Your task to perform on an android device: What's the weather going to be this weekend? Image 0: 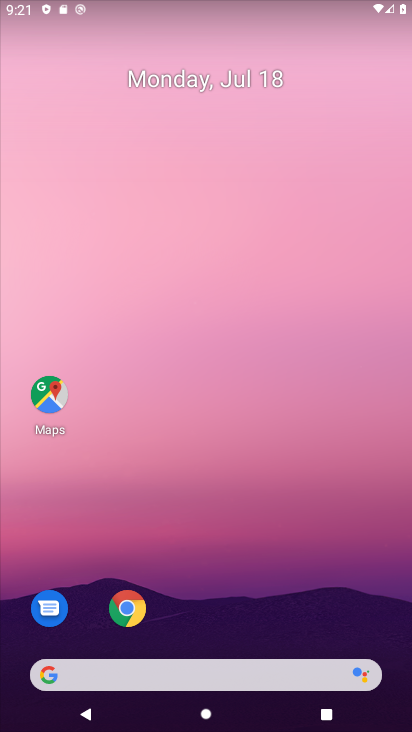
Step 0: drag from (159, 554) to (160, 207)
Your task to perform on an android device: What's the weather going to be this weekend? Image 1: 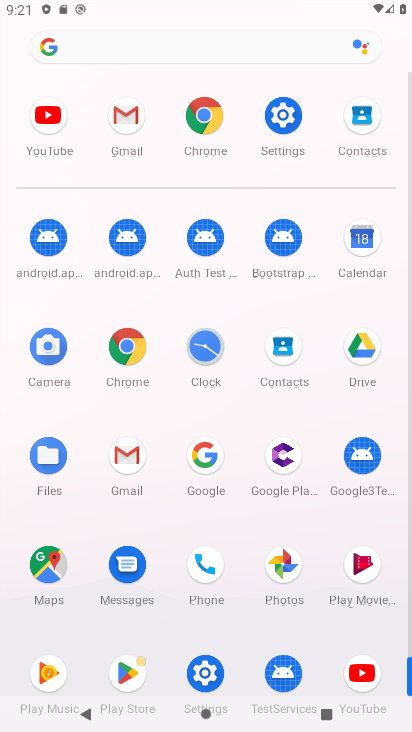
Step 1: click (186, 115)
Your task to perform on an android device: What's the weather going to be this weekend? Image 2: 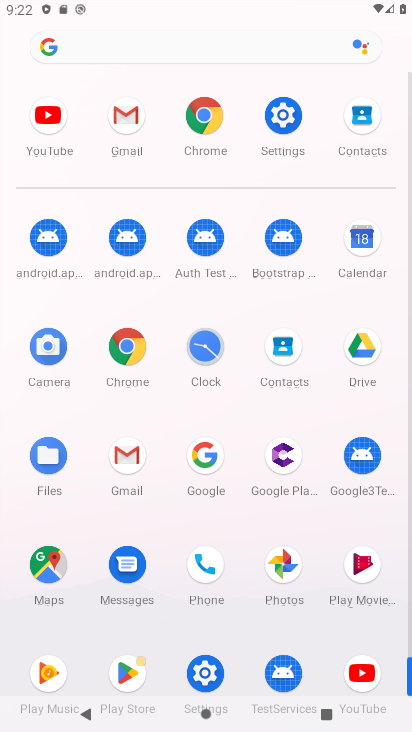
Step 2: click (207, 112)
Your task to perform on an android device: What's the weather going to be this weekend? Image 3: 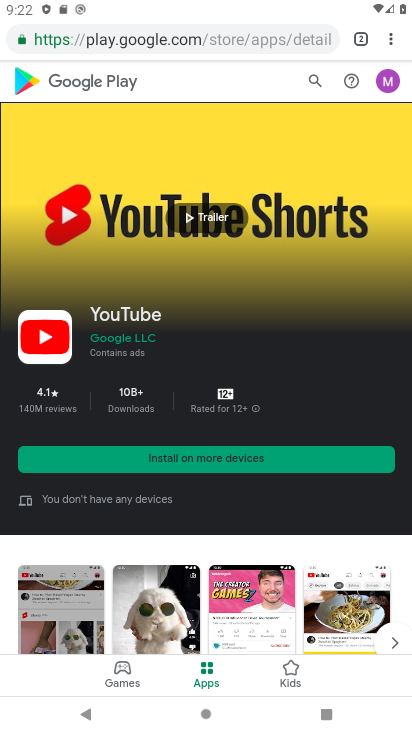
Step 3: drag from (396, 34) to (248, 502)
Your task to perform on an android device: What's the weather going to be this weekend? Image 4: 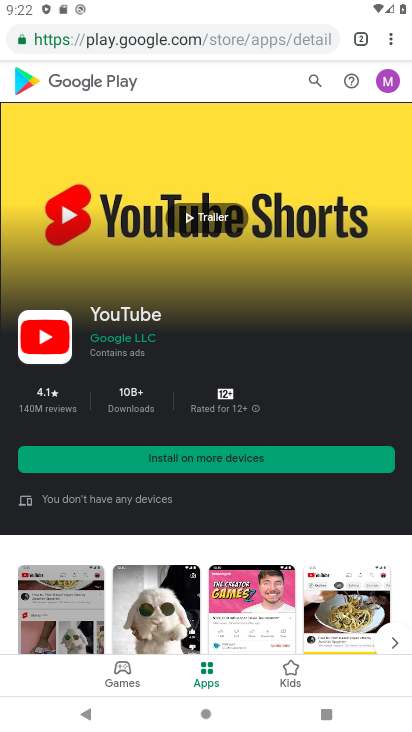
Step 4: click (80, 142)
Your task to perform on an android device: What's the weather going to be this weekend? Image 5: 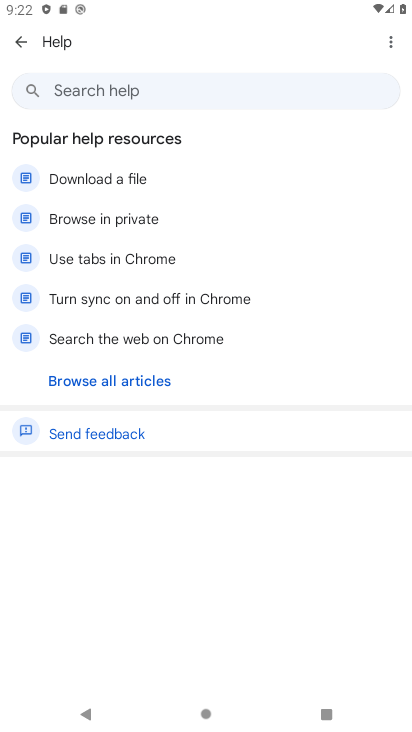
Step 5: click (22, 38)
Your task to perform on an android device: What's the weather going to be this weekend? Image 6: 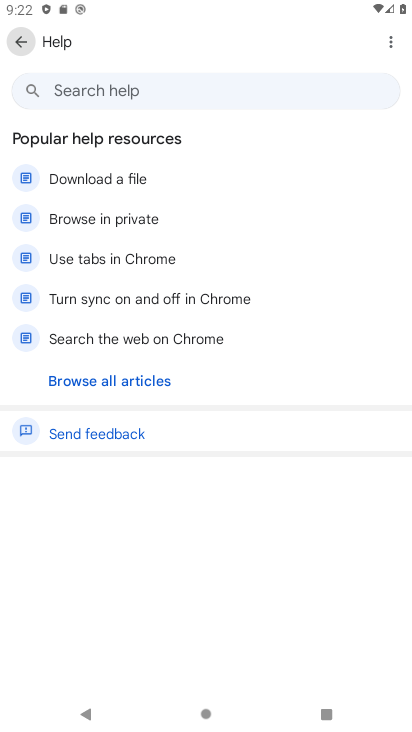
Step 6: click (22, 38)
Your task to perform on an android device: What's the weather going to be this weekend? Image 7: 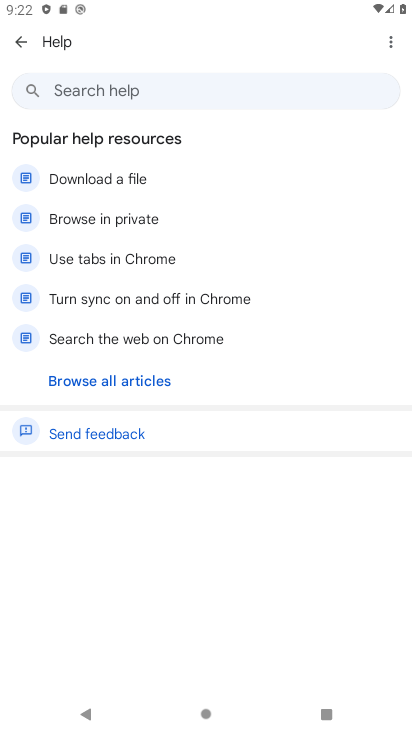
Step 7: click (22, 38)
Your task to perform on an android device: What's the weather going to be this weekend? Image 8: 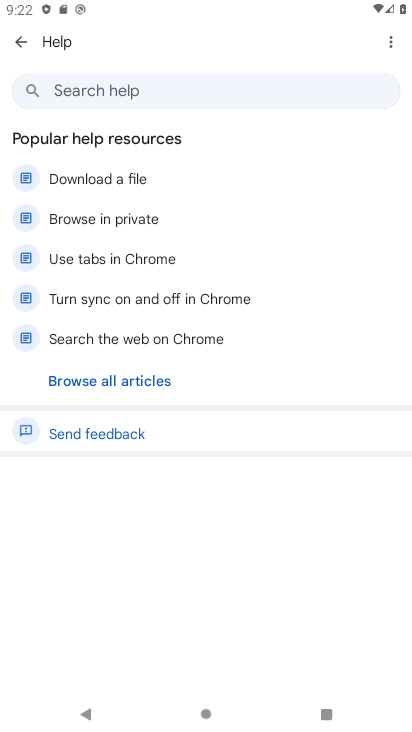
Step 8: click (22, 38)
Your task to perform on an android device: What's the weather going to be this weekend? Image 9: 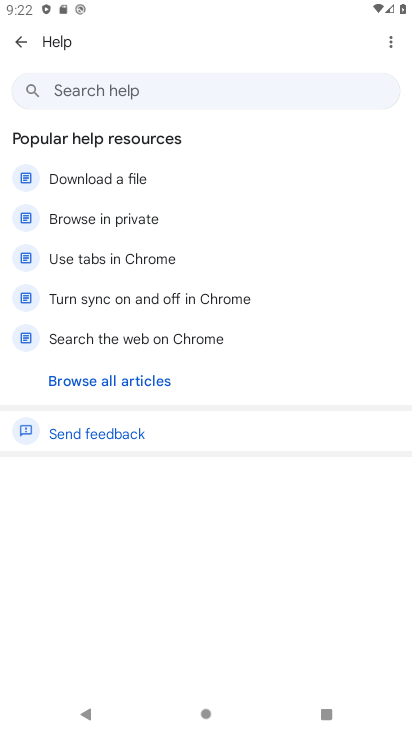
Step 9: click (22, 38)
Your task to perform on an android device: What's the weather going to be this weekend? Image 10: 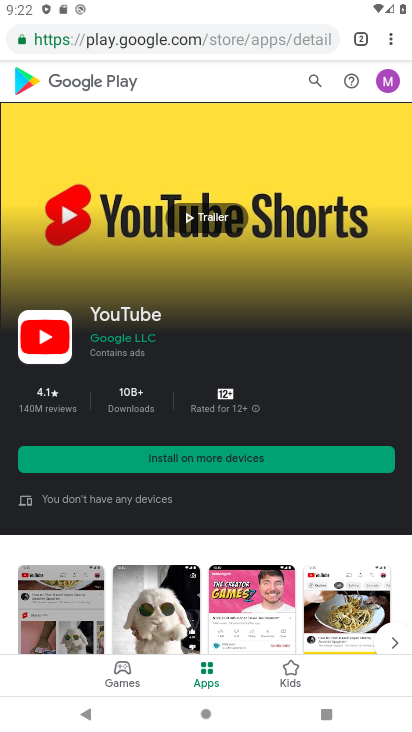
Step 10: drag from (395, 22) to (268, 75)
Your task to perform on an android device: What's the weather going to be this weekend? Image 11: 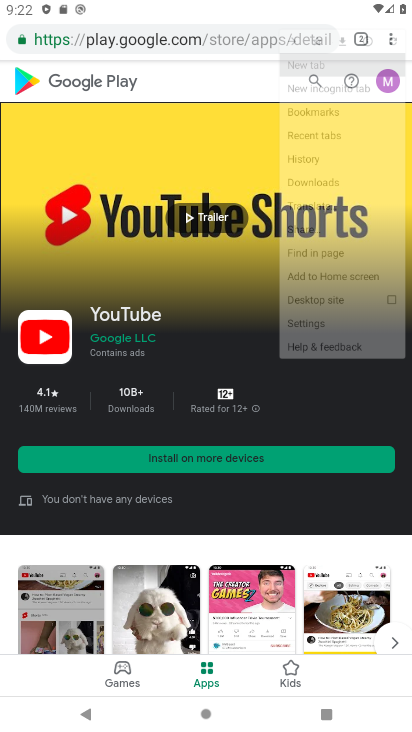
Step 11: click (268, 76)
Your task to perform on an android device: What's the weather going to be this weekend? Image 12: 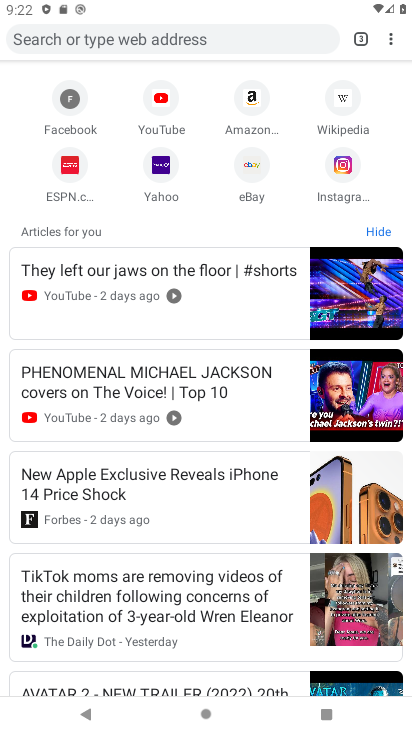
Step 12: click (52, 32)
Your task to perform on an android device: What's the weather going to be this weekend? Image 13: 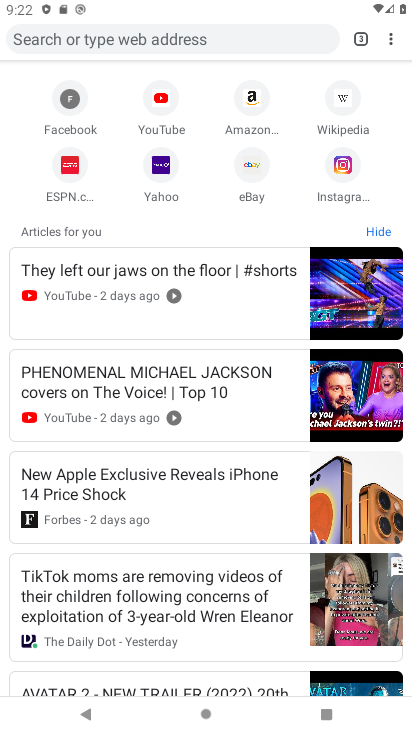
Step 13: click (50, 34)
Your task to perform on an android device: What's the weather going to be this weekend? Image 14: 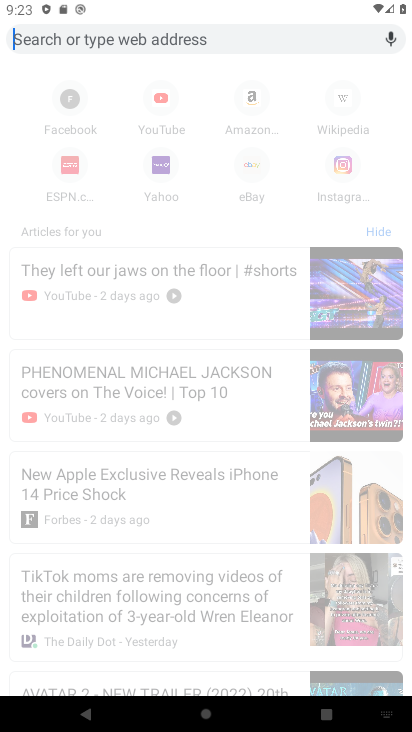
Step 14: type "weather goiing to be this weekend?"
Your task to perform on an android device: What's the weather going to be this weekend? Image 15: 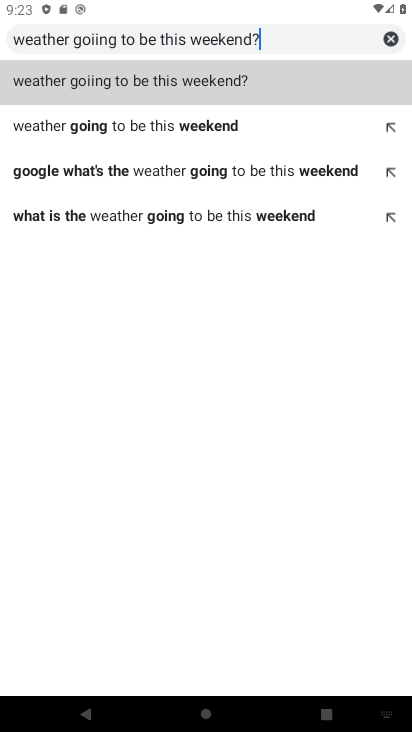
Step 15: click (123, 98)
Your task to perform on an android device: What's the weather going to be this weekend? Image 16: 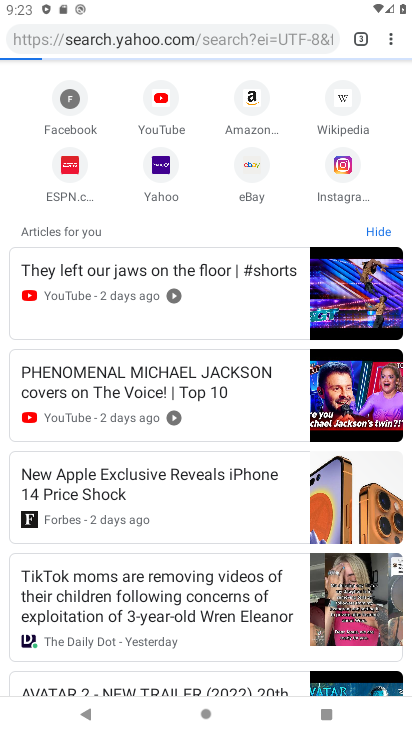
Step 16: click (178, 95)
Your task to perform on an android device: What's the weather going to be this weekend? Image 17: 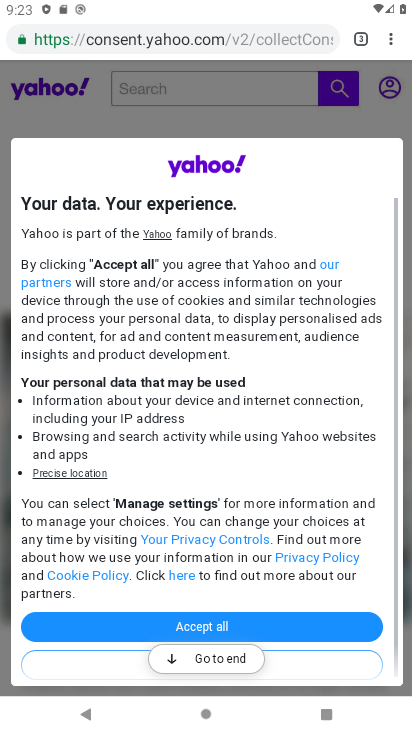
Step 17: task complete